Your task to perform on an android device: open device folders in google photos Image 0: 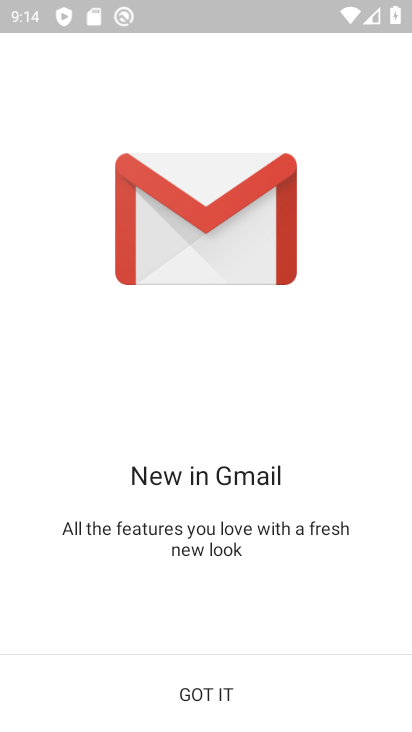
Step 0: press home button
Your task to perform on an android device: open device folders in google photos Image 1: 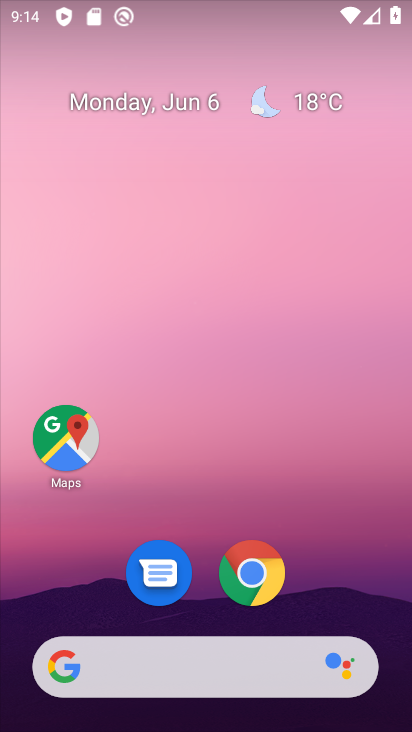
Step 1: drag from (400, 627) to (339, 350)
Your task to perform on an android device: open device folders in google photos Image 2: 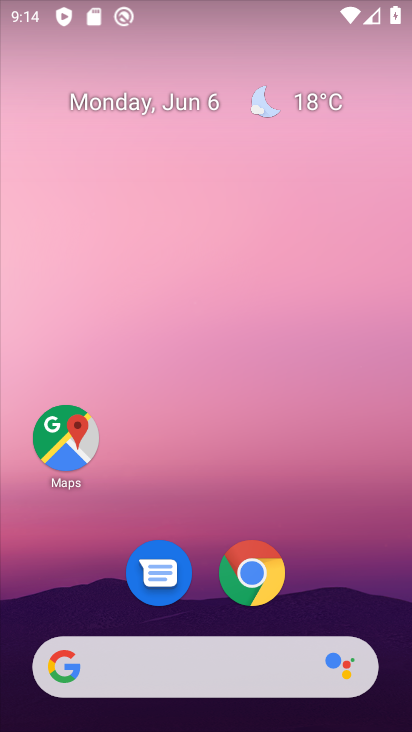
Step 2: drag from (391, 611) to (291, 54)
Your task to perform on an android device: open device folders in google photos Image 3: 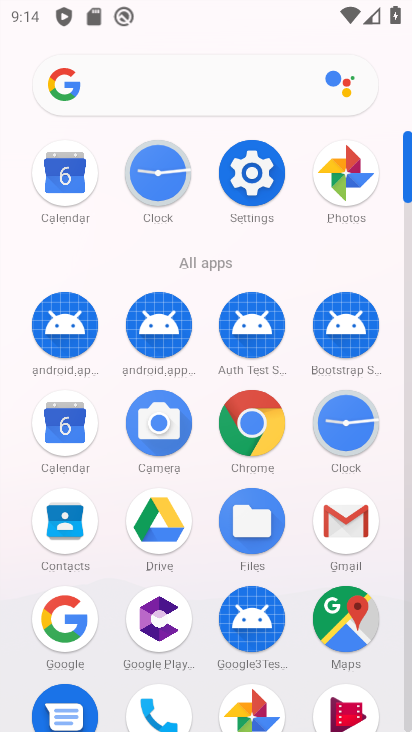
Step 3: click (345, 194)
Your task to perform on an android device: open device folders in google photos Image 4: 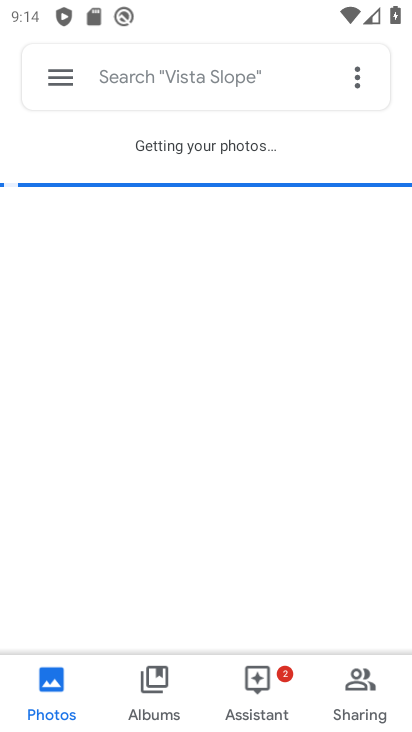
Step 4: click (62, 74)
Your task to perform on an android device: open device folders in google photos Image 5: 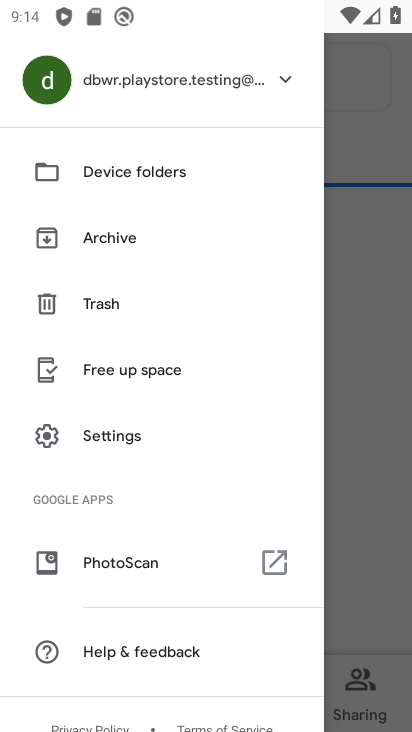
Step 5: click (188, 176)
Your task to perform on an android device: open device folders in google photos Image 6: 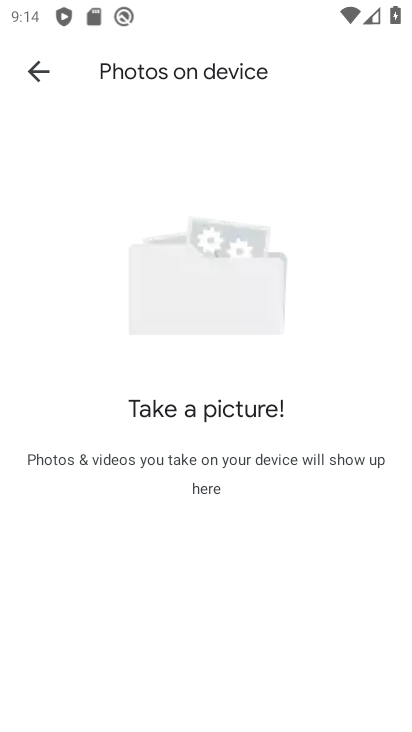
Step 6: task complete